Your task to perform on an android device: Open battery settings Image 0: 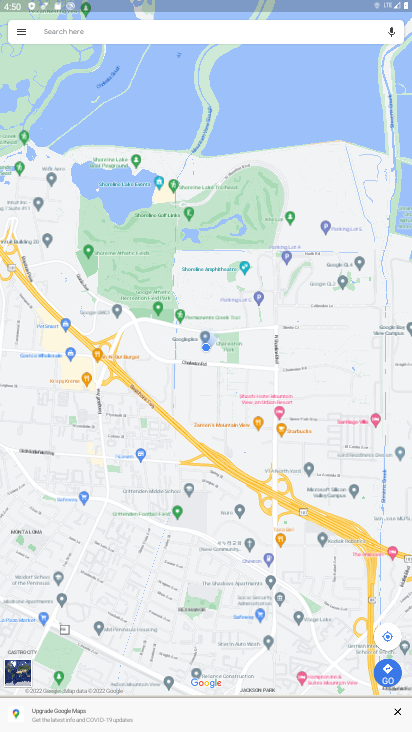
Step 0: press home button
Your task to perform on an android device: Open battery settings Image 1: 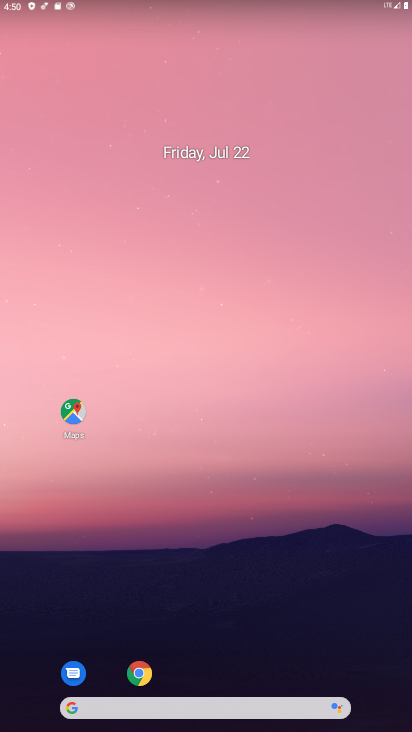
Step 1: drag from (281, 618) to (282, 102)
Your task to perform on an android device: Open battery settings Image 2: 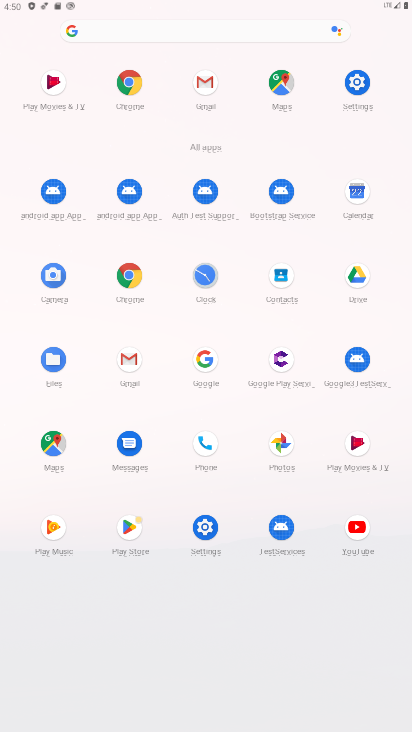
Step 2: click (366, 76)
Your task to perform on an android device: Open battery settings Image 3: 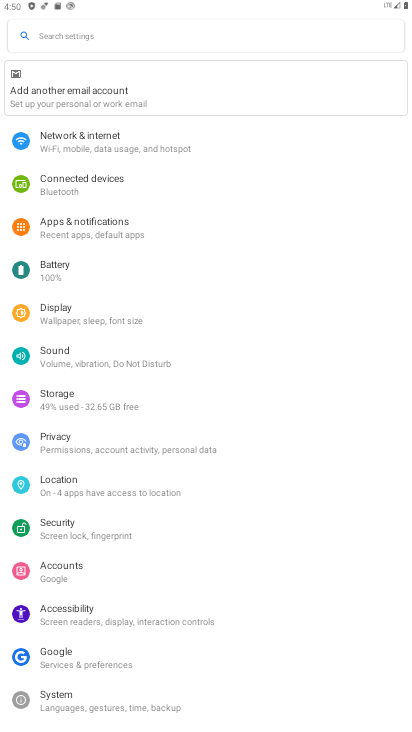
Step 3: click (55, 270)
Your task to perform on an android device: Open battery settings Image 4: 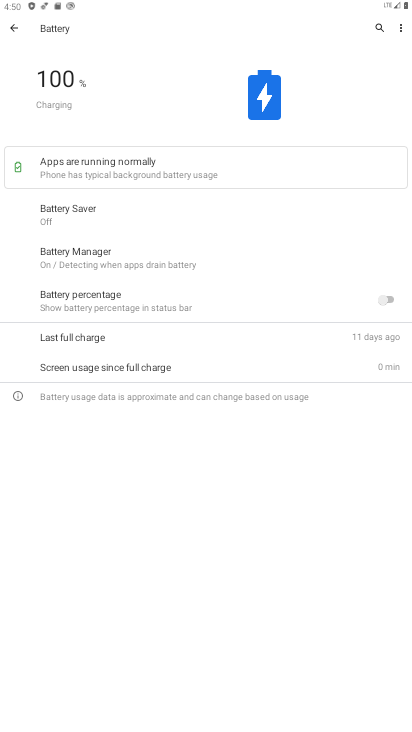
Step 4: task complete